Your task to perform on an android device: turn off location Image 0: 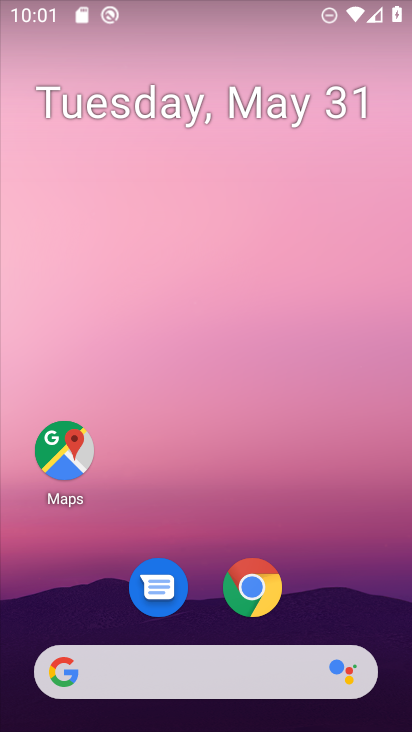
Step 0: press home button
Your task to perform on an android device: turn off location Image 1: 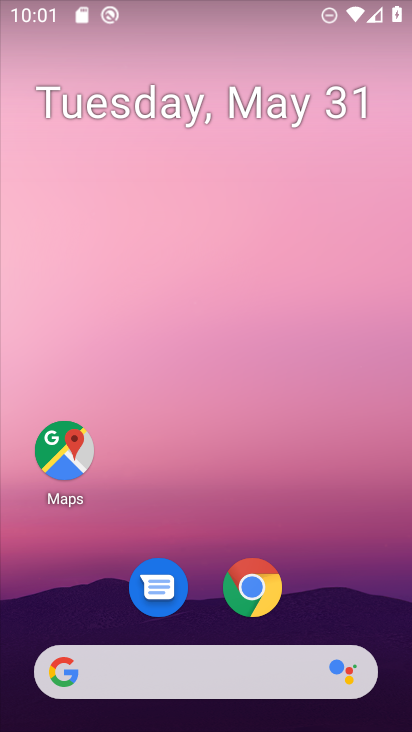
Step 1: drag from (207, 627) to (219, 30)
Your task to perform on an android device: turn off location Image 2: 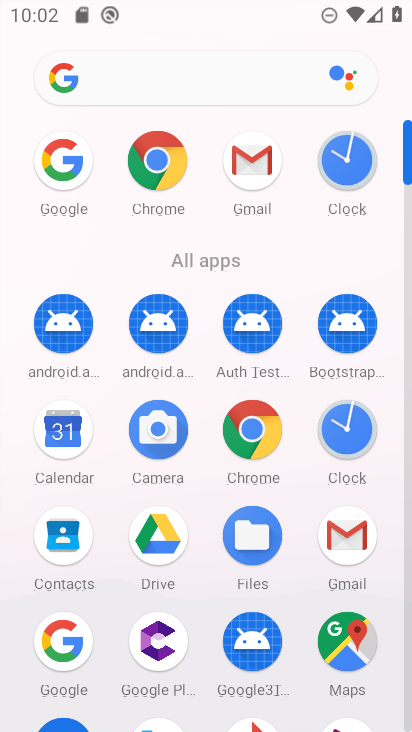
Step 2: drag from (203, 520) to (211, 99)
Your task to perform on an android device: turn off location Image 3: 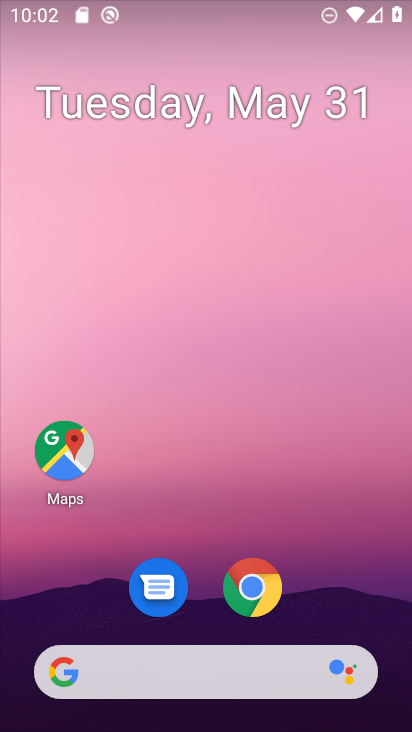
Step 3: drag from (197, 622) to (240, 78)
Your task to perform on an android device: turn off location Image 4: 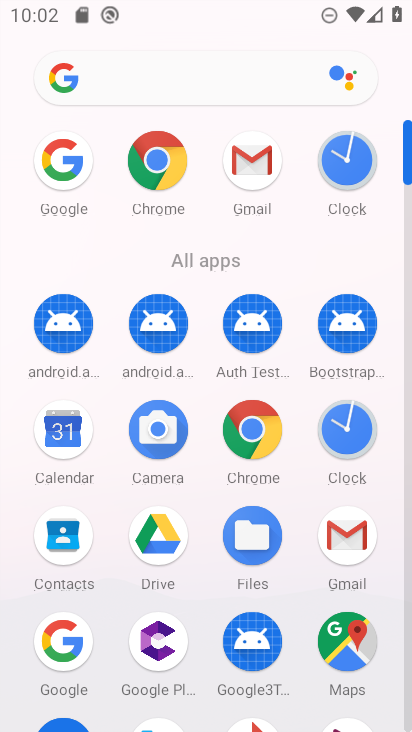
Step 4: drag from (297, 612) to (313, 109)
Your task to perform on an android device: turn off location Image 5: 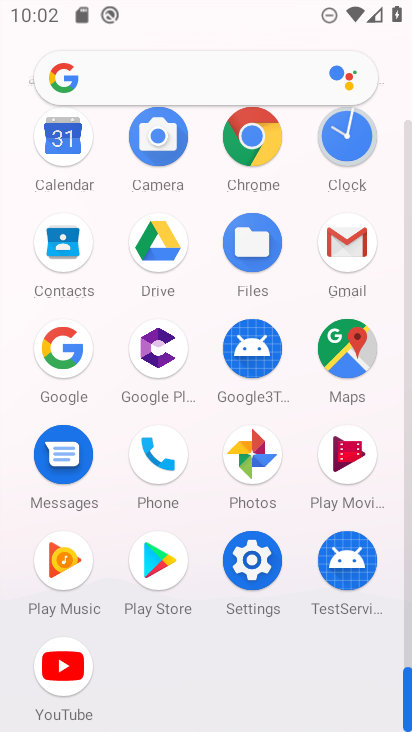
Step 5: click (249, 553)
Your task to perform on an android device: turn off location Image 6: 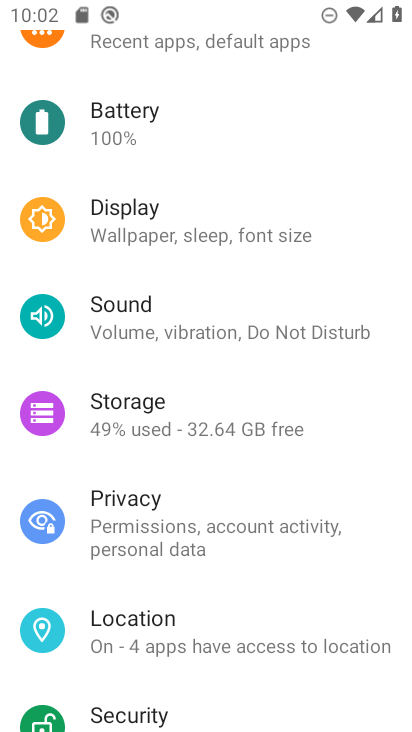
Step 6: click (187, 623)
Your task to perform on an android device: turn off location Image 7: 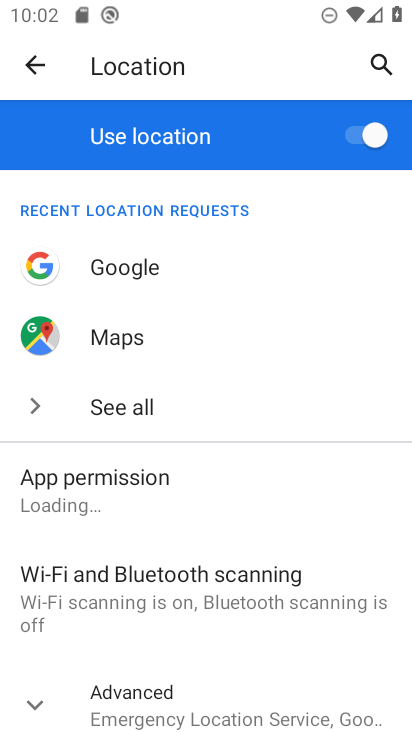
Step 7: click (357, 130)
Your task to perform on an android device: turn off location Image 8: 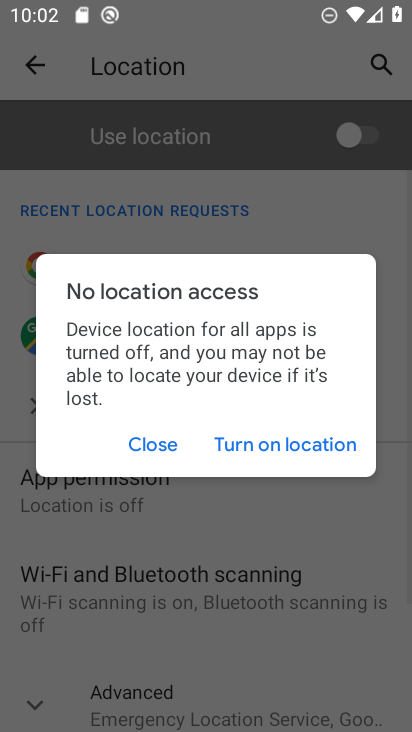
Step 8: task complete